Your task to perform on an android device: read, delete, or share a saved page in the chrome app Image 0: 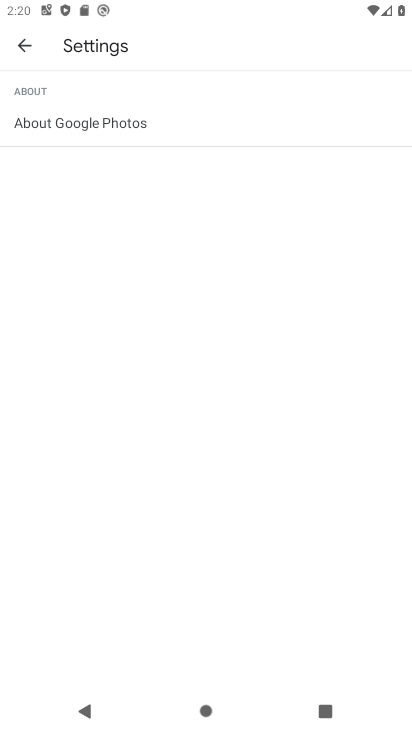
Step 0: press home button
Your task to perform on an android device: read, delete, or share a saved page in the chrome app Image 1: 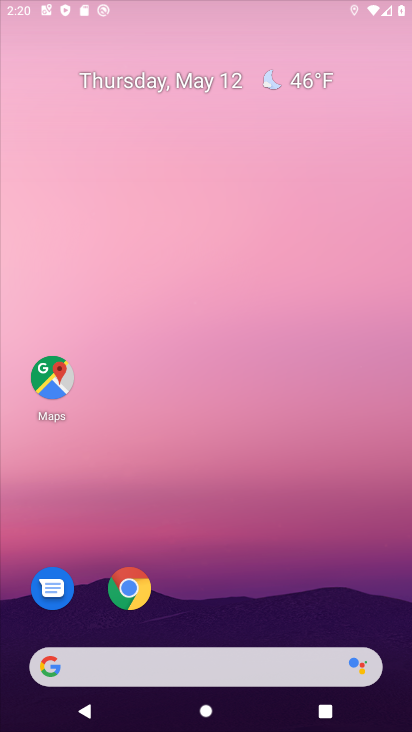
Step 1: drag from (312, 600) to (331, 19)
Your task to perform on an android device: read, delete, or share a saved page in the chrome app Image 2: 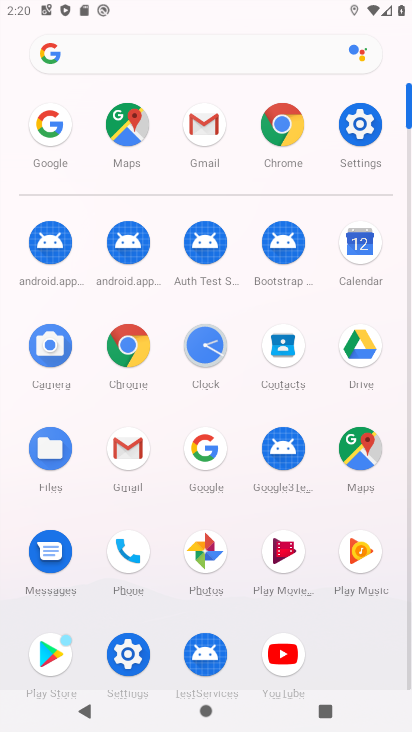
Step 2: click (113, 351)
Your task to perform on an android device: read, delete, or share a saved page in the chrome app Image 3: 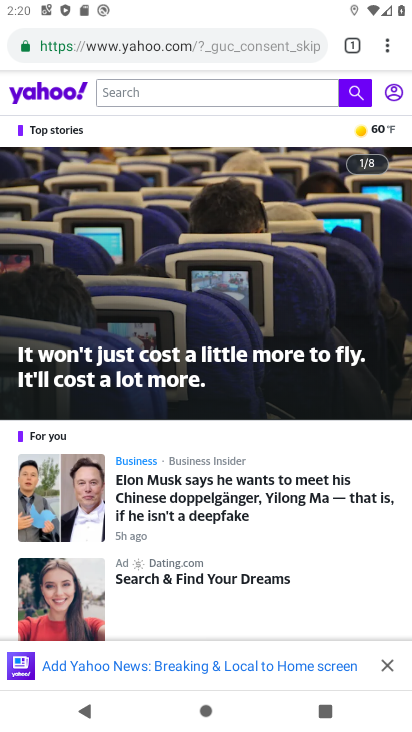
Step 3: task complete